Your task to perform on an android device: manage bookmarks in the chrome app Image 0: 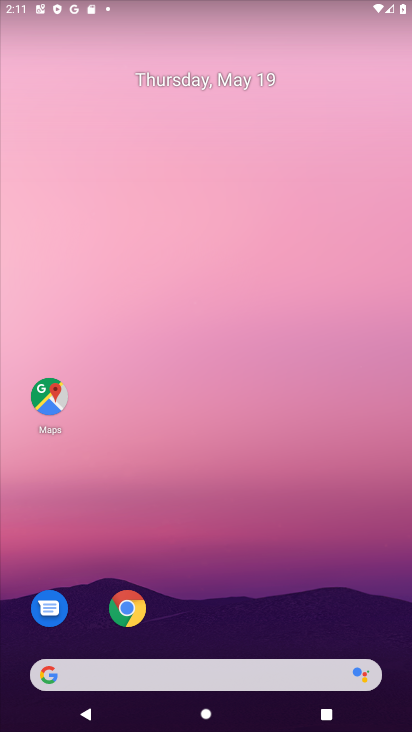
Step 0: drag from (224, 605) to (308, 18)
Your task to perform on an android device: manage bookmarks in the chrome app Image 1: 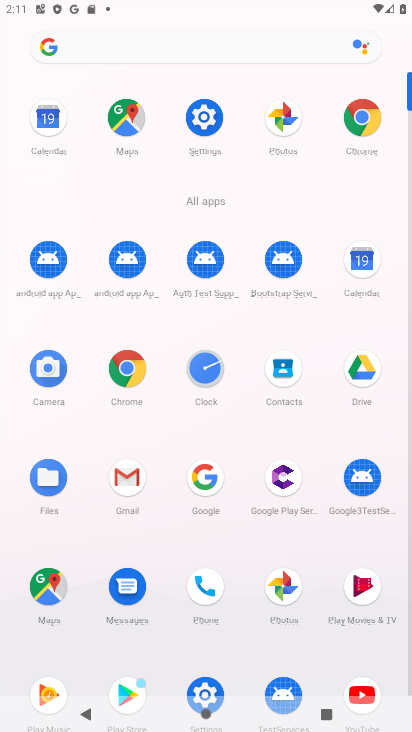
Step 1: click (358, 161)
Your task to perform on an android device: manage bookmarks in the chrome app Image 2: 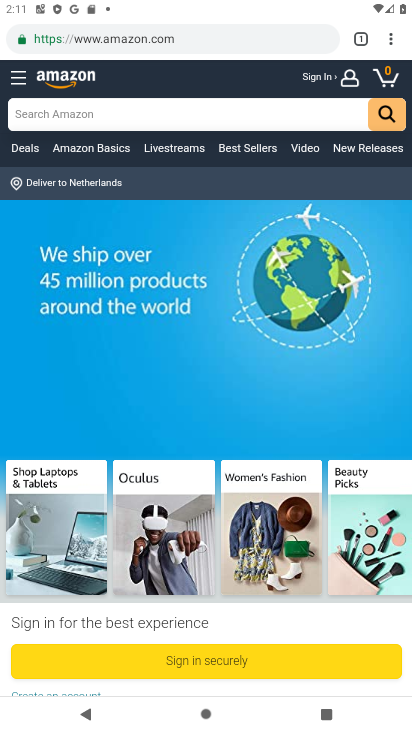
Step 2: click (403, 41)
Your task to perform on an android device: manage bookmarks in the chrome app Image 3: 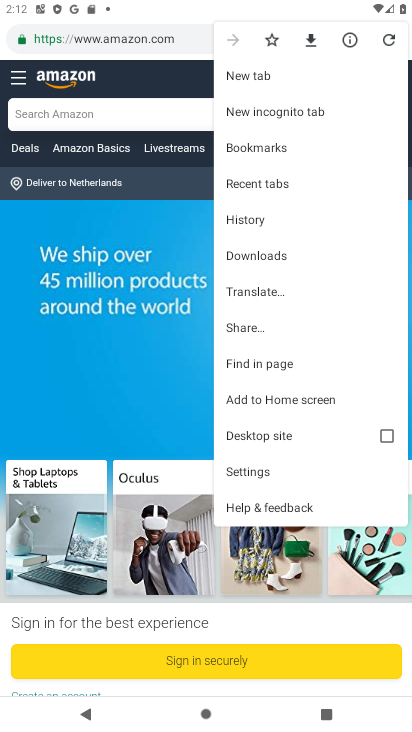
Step 3: click (327, 145)
Your task to perform on an android device: manage bookmarks in the chrome app Image 4: 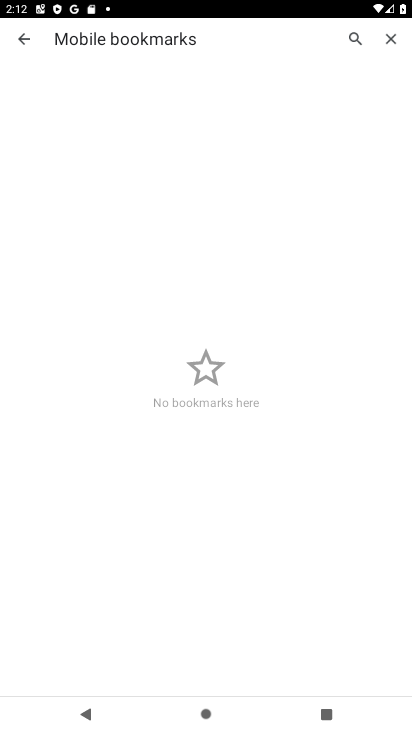
Step 4: task complete